Your task to perform on an android device: What's on my calendar today? Image 0: 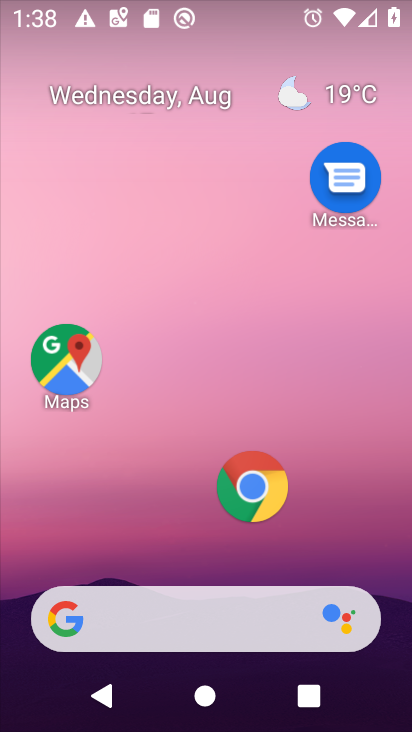
Step 0: drag from (213, 374) to (263, 3)
Your task to perform on an android device: What's on my calendar today? Image 1: 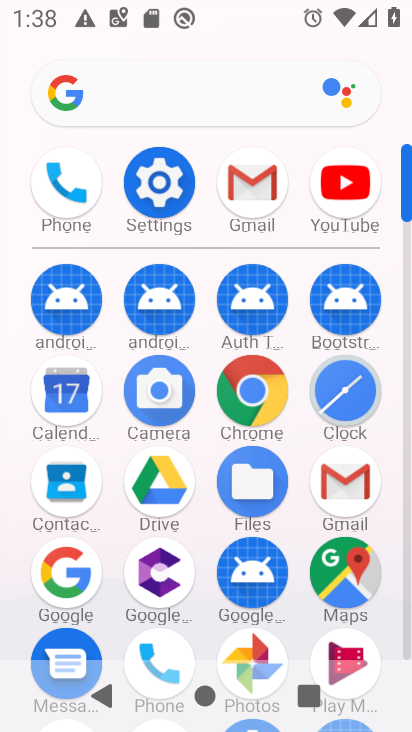
Step 1: click (60, 385)
Your task to perform on an android device: What's on my calendar today? Image 2: 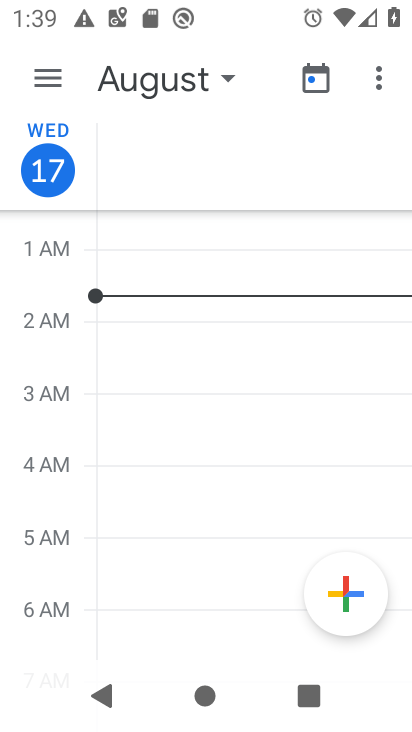
Step 2: press back button
Your task to perform on an android device: What's on my calendar today? Image 3: 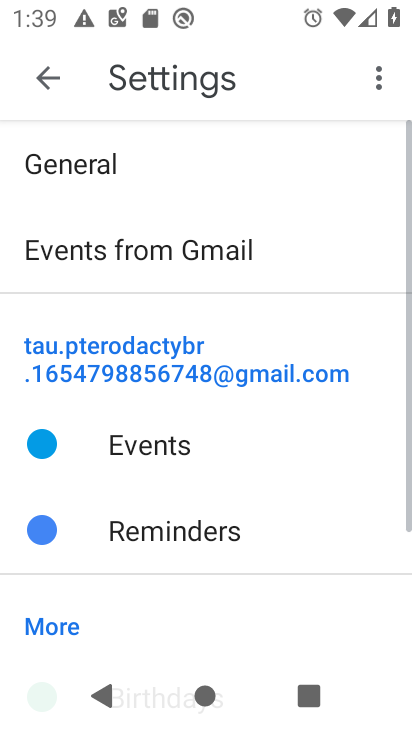
Step 3: press back button
Your task to perform on an android device: What's on my calendar today? Image 4: 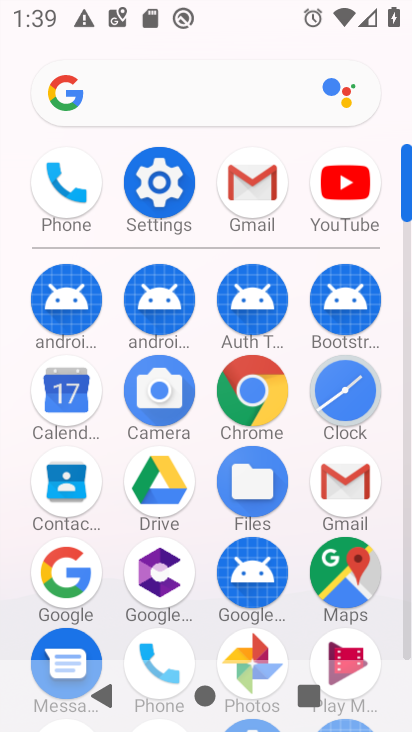
Step 4: click (68, 398)
Your task to perform on an android device: What's on my calendar today? Image 5: 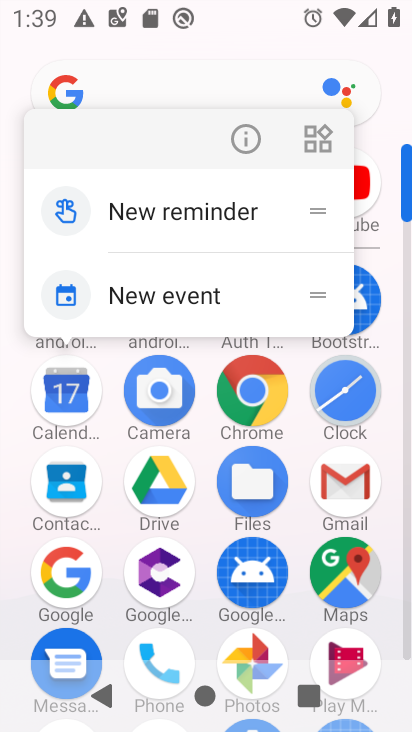
Step 5: click (68, 398)
Your task to perform on an android device: What's on my calendar today? Image 6: 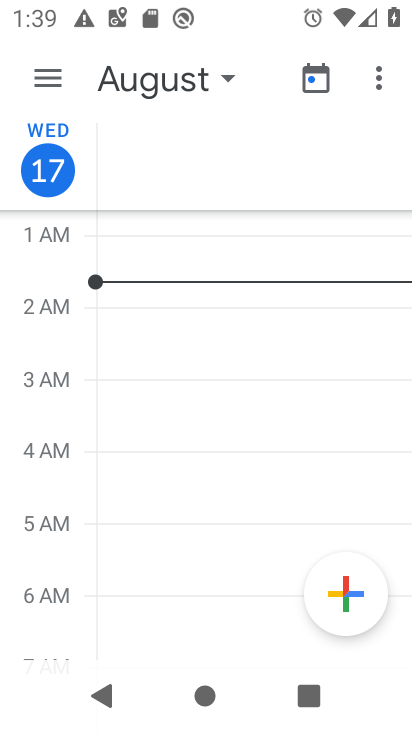
Step 6: click (49, 68)
Your task to perform on an android device: What's on my calendar today? Image 7: 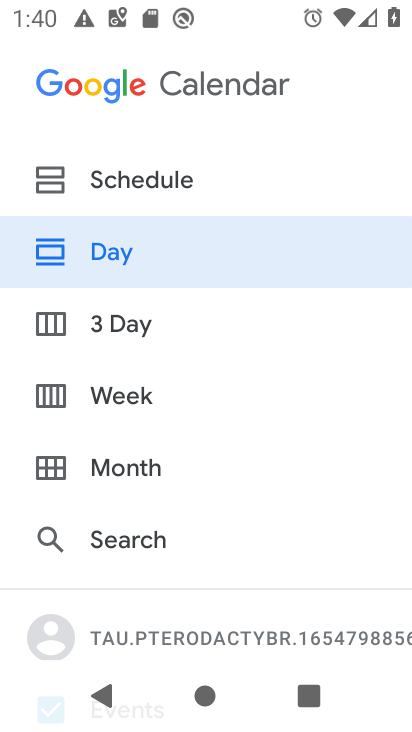
Step 7: click (202, 184)
Your task to perform on an android device: What's on my calendar today? Image 8: 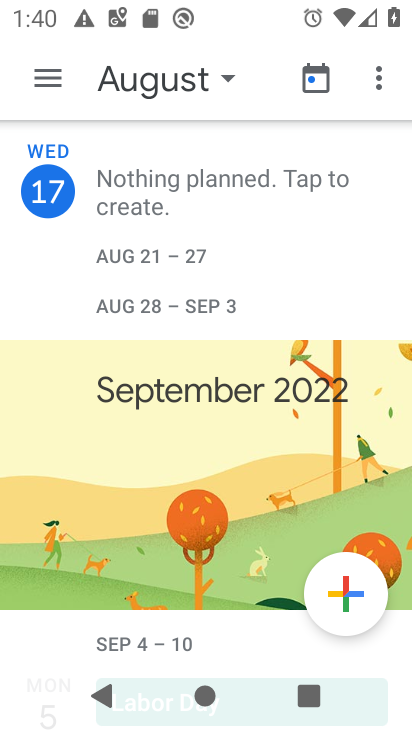
Step 8: task complete